Your task to perform on an android device: Open the calendar and show me this week's events? Image 0: 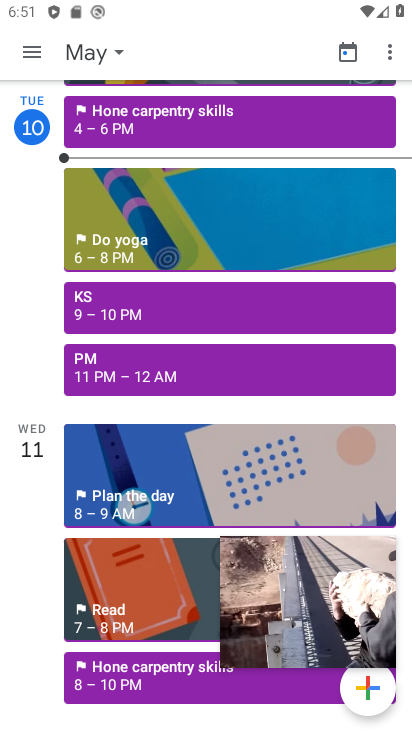
Step 0: click (377, 547)
Your task to perform on an android device: Open the calendar and show me this week's events? Image 1: 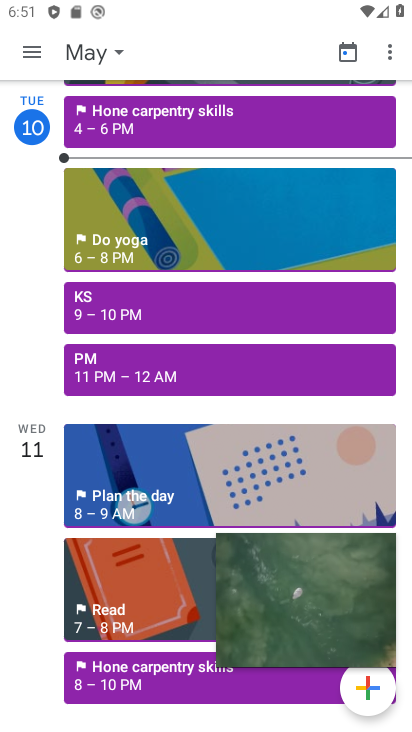
Step 1: click (375, 498)
Your task to perform on an android device: Open the calendar and show me this week's events? Image 2: 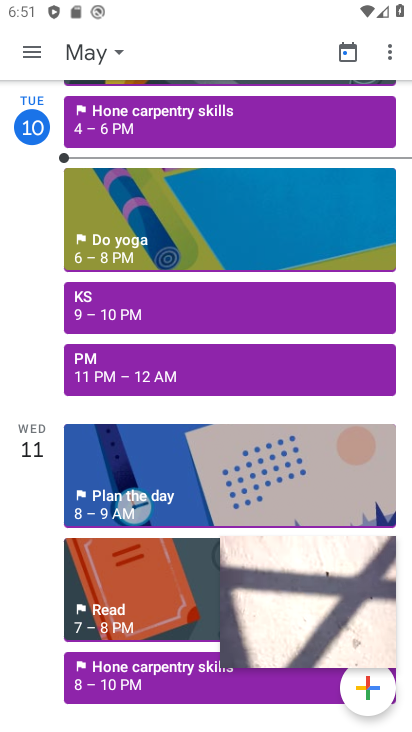
Step 2: click (363, 562)
Your task to perform on an android device: Open the calendar and show me this week's events? Image 3: 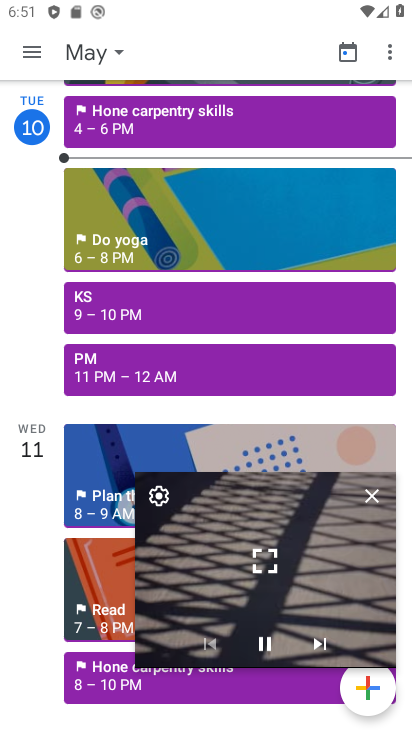
Step 3: click (373, 502)
Your task to perform on an android device: Open the calendar and show me this week's events? Image 4: 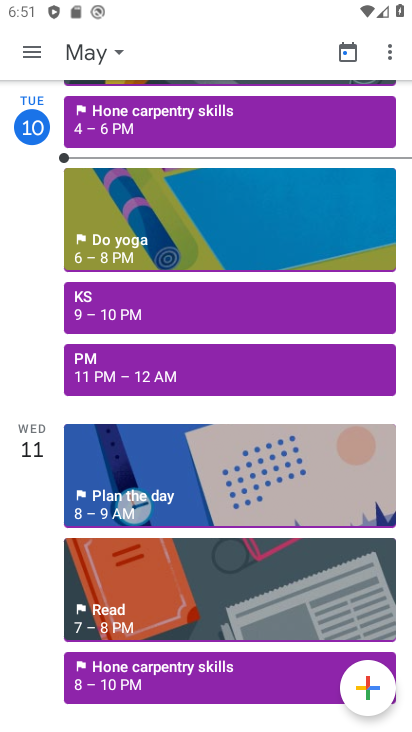
Step 4: click (91, 62)
Your task to perform on an android device: Open the calendar and show me this week's events? Image 5: 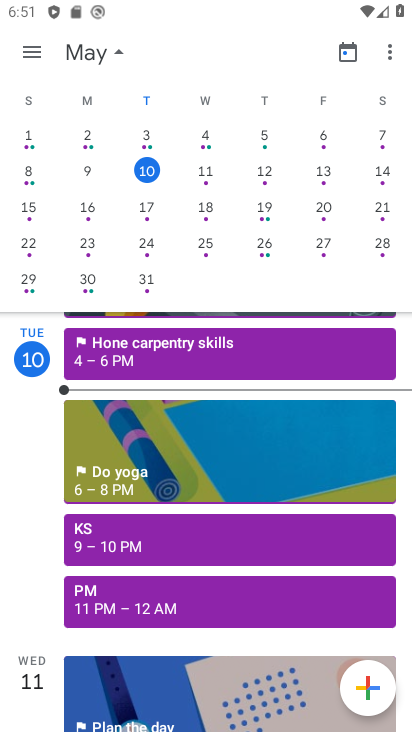
Step 5: click (205, 172)
Your task to perform on an android device: Open the calendar and show me this week's events? Image 6: 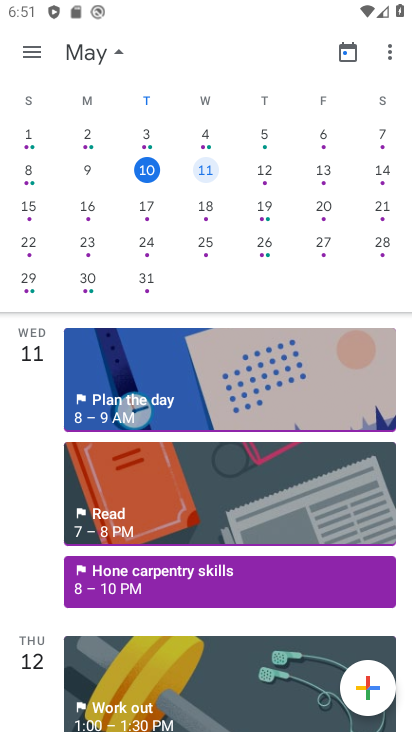
Step 6: task complete